Your task to perform on an android device: open app "Expedia: Hotels, Flights & Car" (install if not already installed), go to login, and select forgot password Image 0: 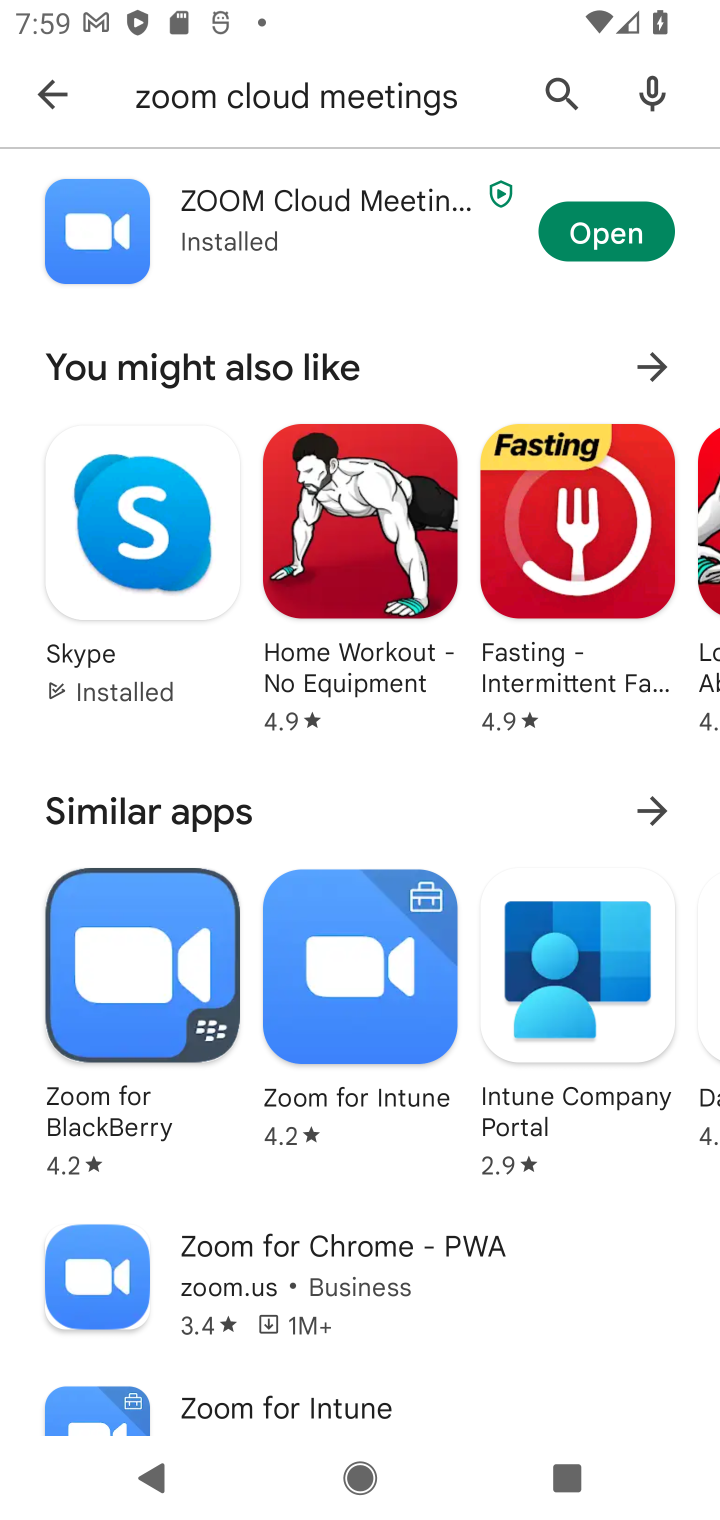
Step 0: click (559, 95)
Your task to perform on an android device: open app "Expedia: Hotels, Flights & Car" (install if not already installed), go to login, and select forgot password Image 1: 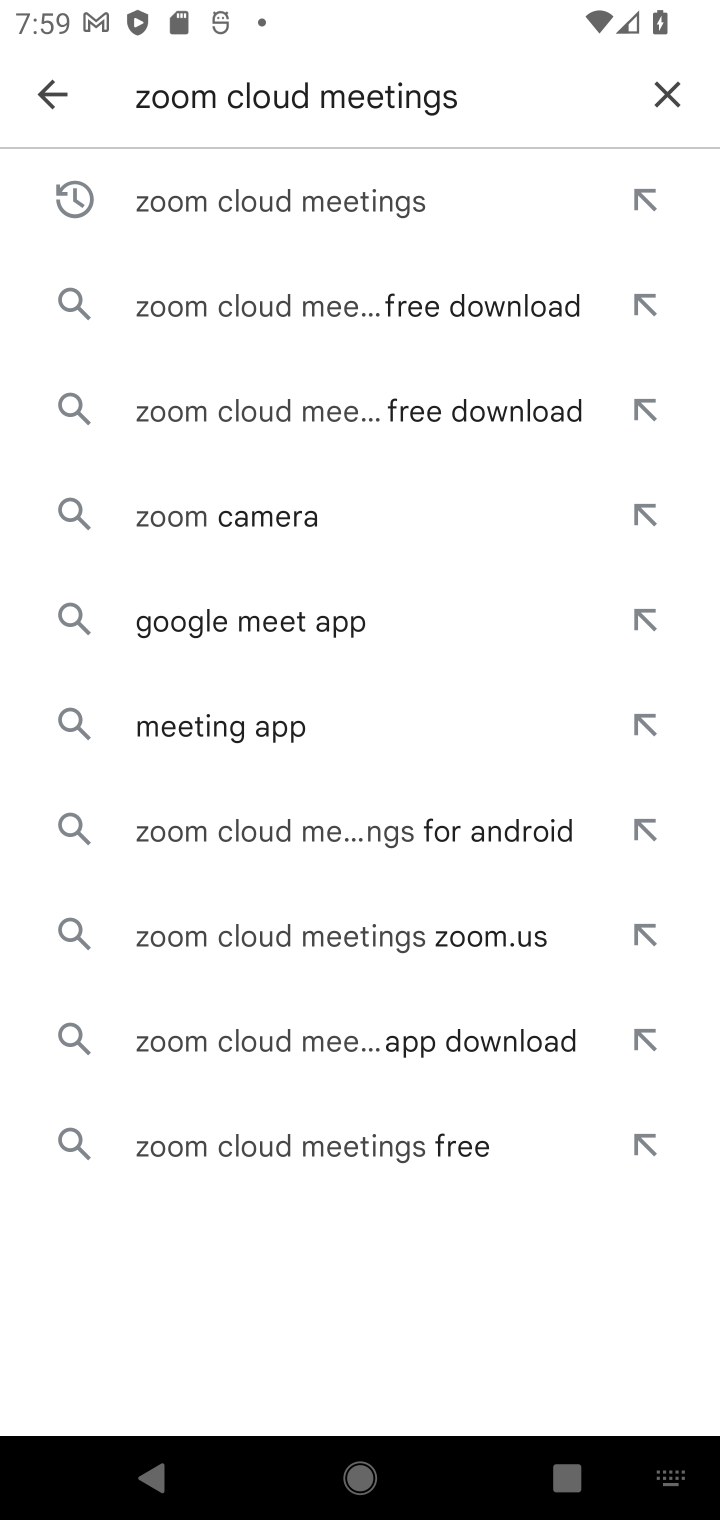
Step 1: click (670, 93)
Your task to perform on an android device: open app "Expedia: Hotels, Flights & Car" (install if not already installed), go to login, and select forgot password Image 2: 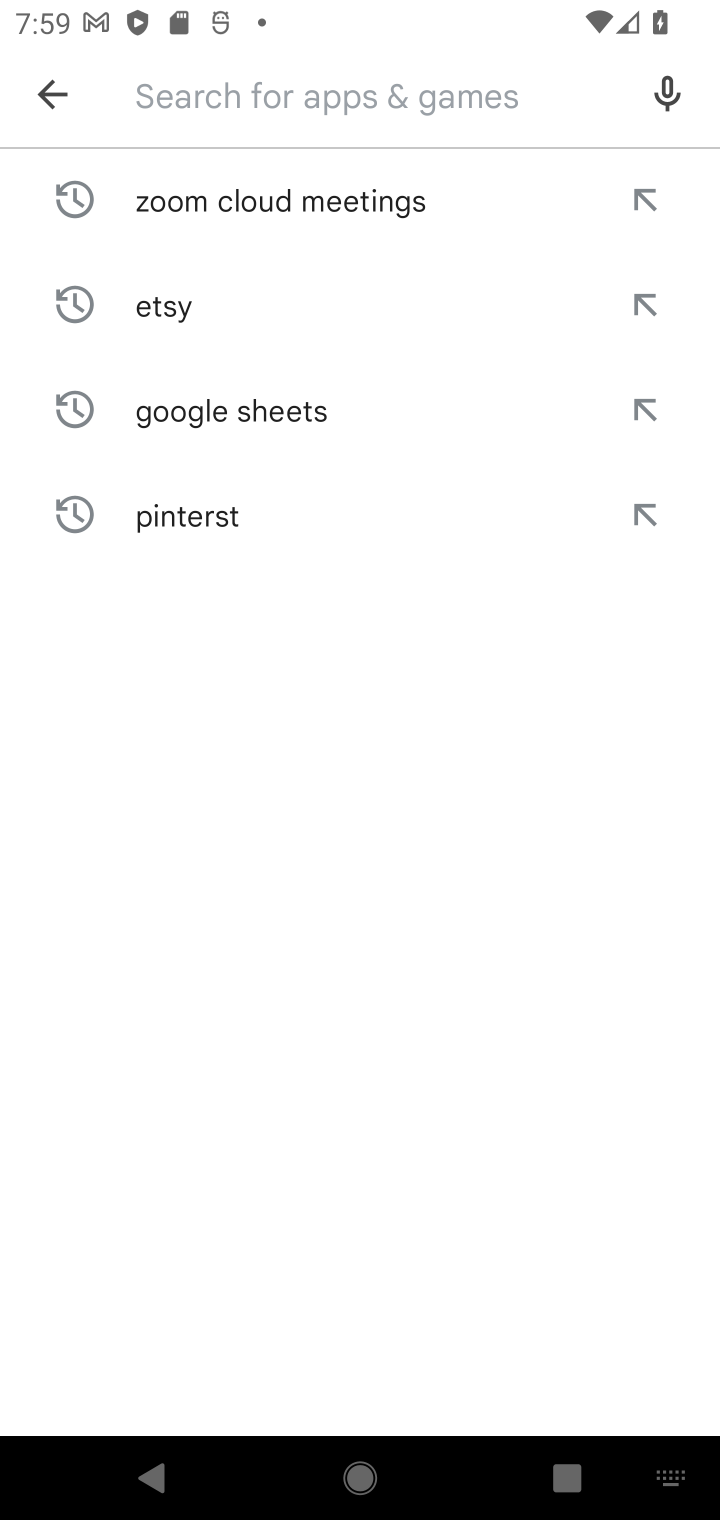
Step 2: click (278, 106)
Your task to perform on an android device: open app "Expedia: Hotels, Flights & Car" (install if not already installed), go to login, and select forgot password Image 3: 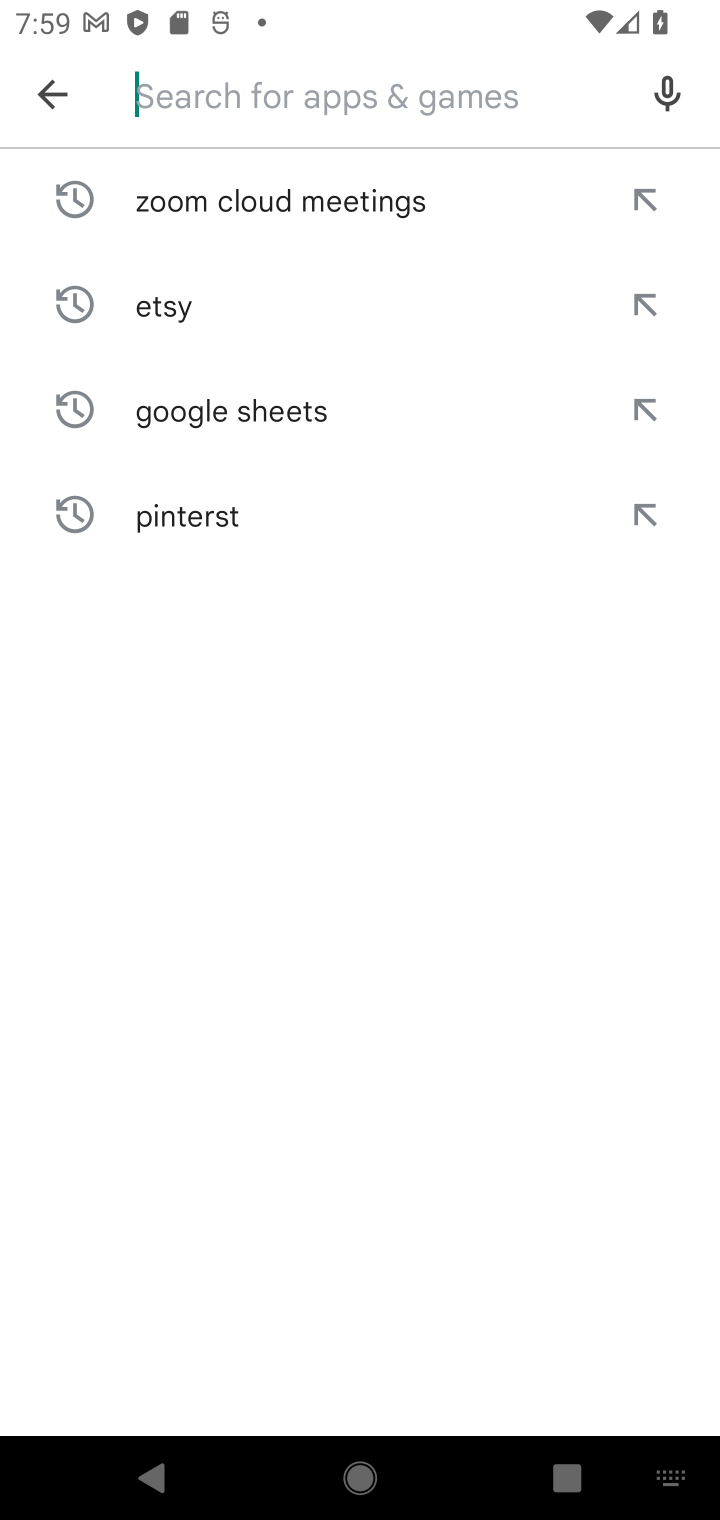
Step 3: type "expedia"
Your task to perform on an android device: open app "Expedia: Hotels, Flights & Car" (install if not already installed), go to login, and select forgot password Image 4: 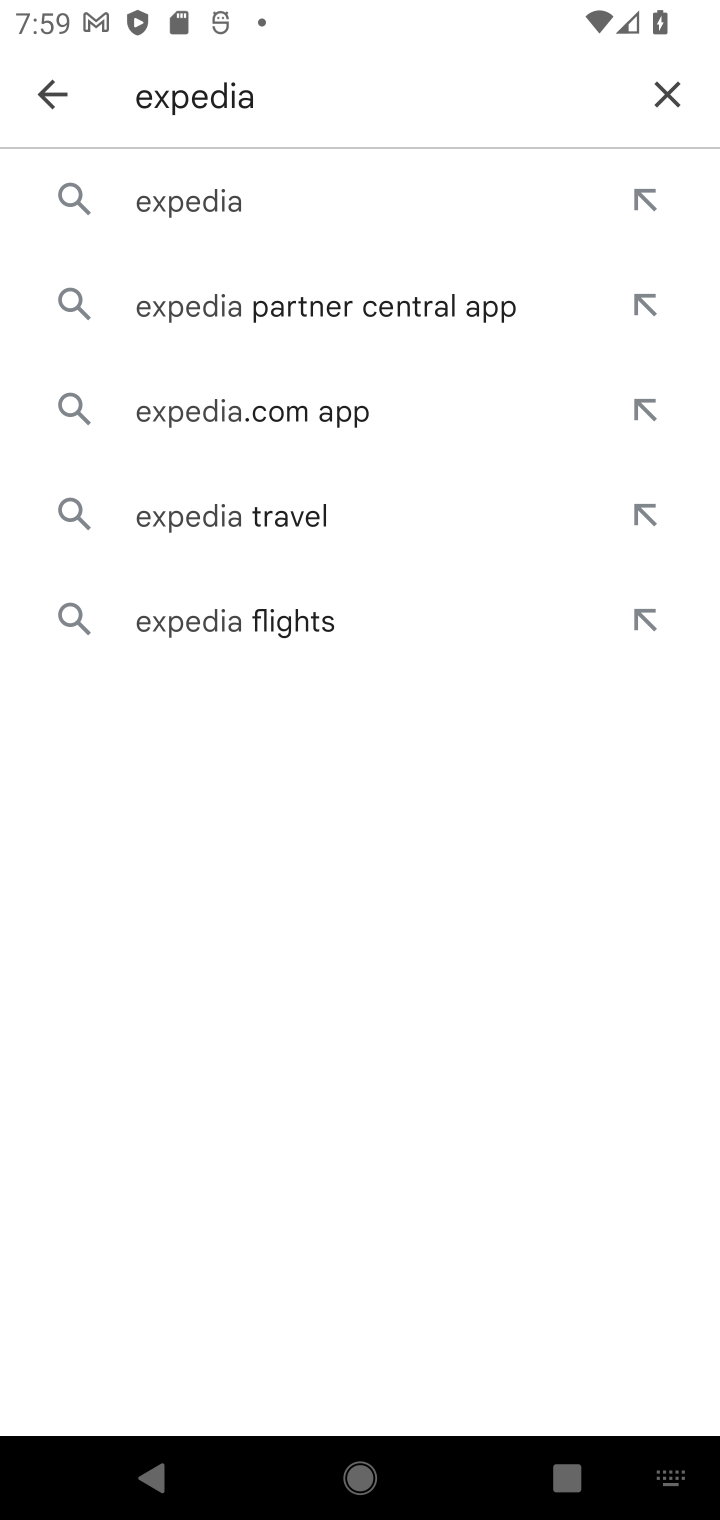
Step 4: click (427, 193)
Your task to perform on an android device: open app "Expedia: Hotels, Flights & Car" (install if not already installed), go to login, and select forgot password Image 5: 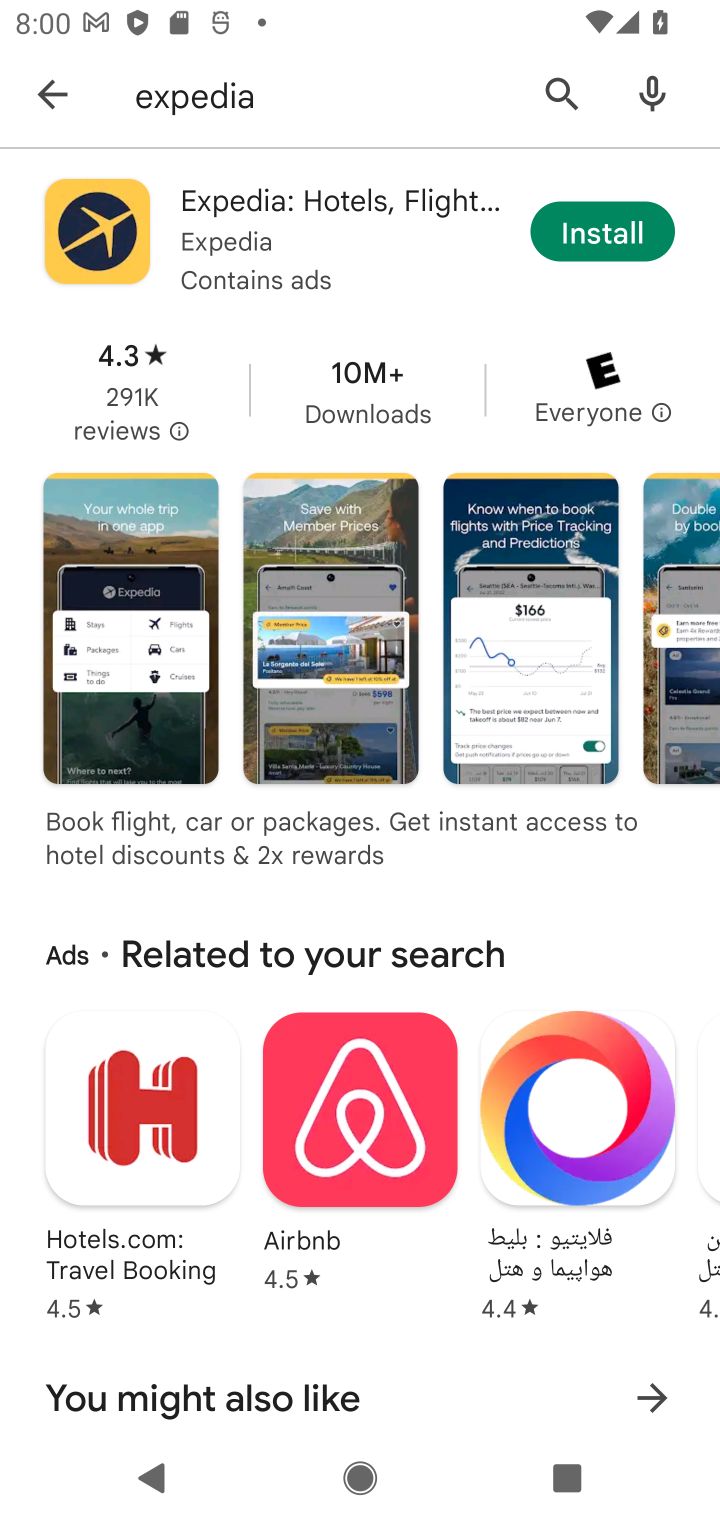
Step 5: click (557, 221)
Your task to perform on an android device: open app "Expedia: Hotels, Flights & Car" (install if not already installed), go to login, and select forgot password Image 6: 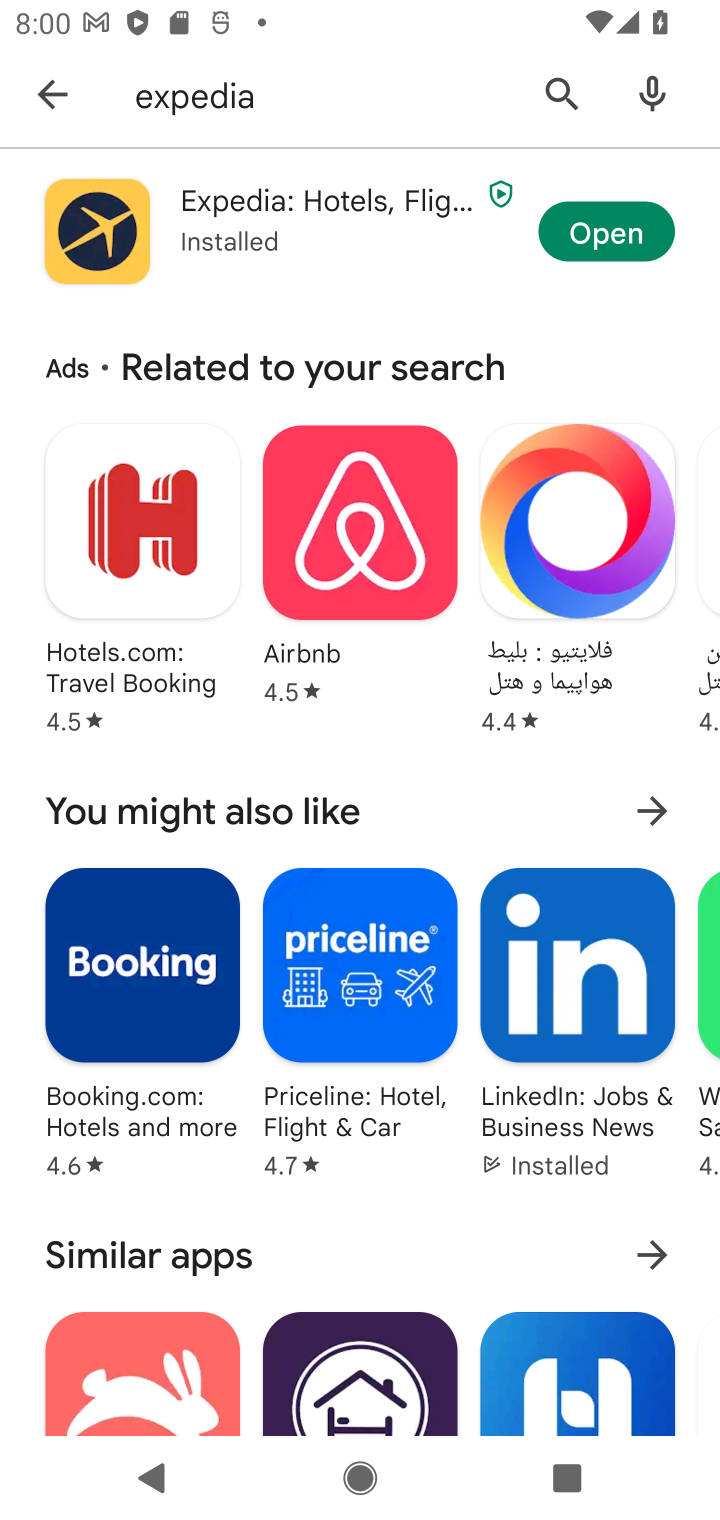
Step 6: click (617, 230)
Your task to perform on an android device: open app "Expedia: Hotels, Flights & Car" (install if not already installed), go to login, and select forgot password Image 7: 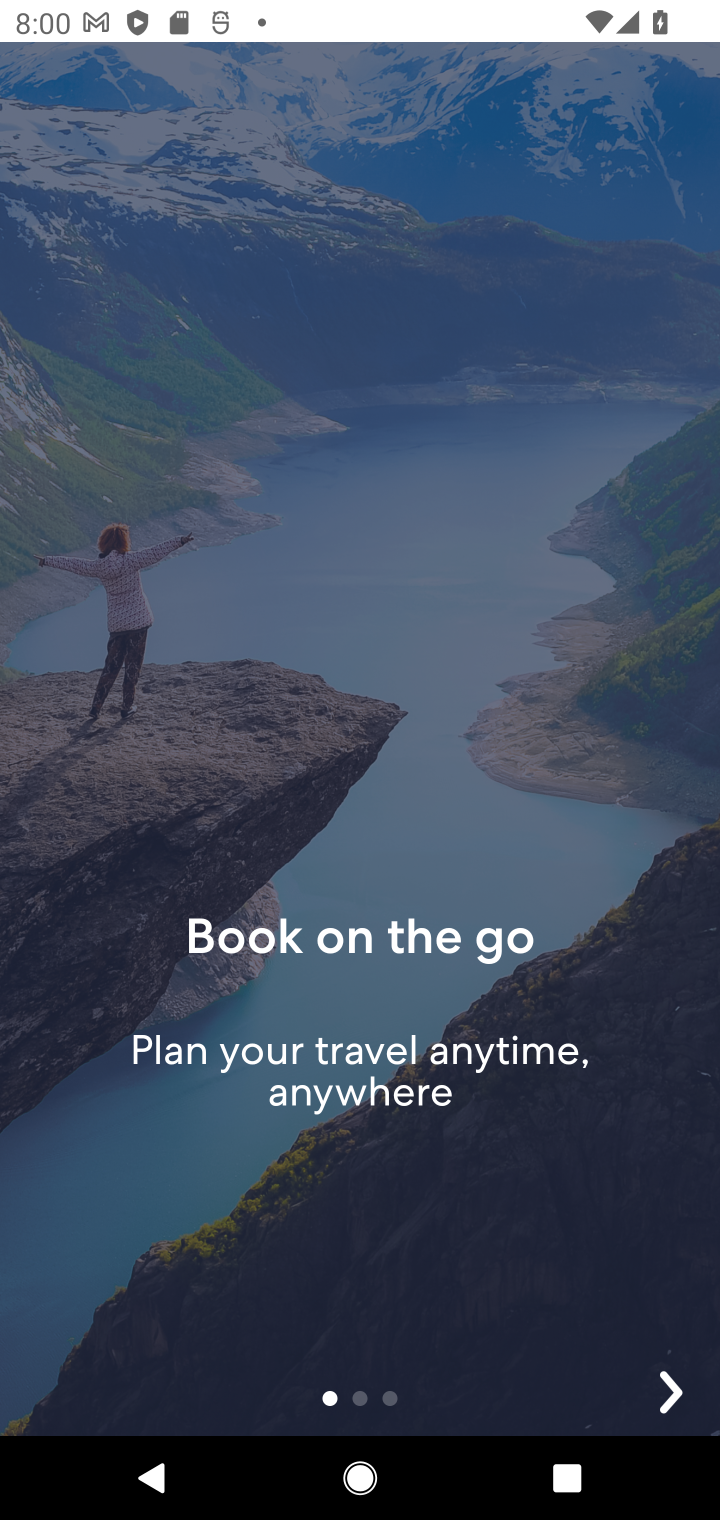
Step 7: click (663, 1384)
Your task to perform on an android device: open app "Expedia: Hotels, Flights & Car" (install if not already installed), go to login, and select forgot password Image 8: 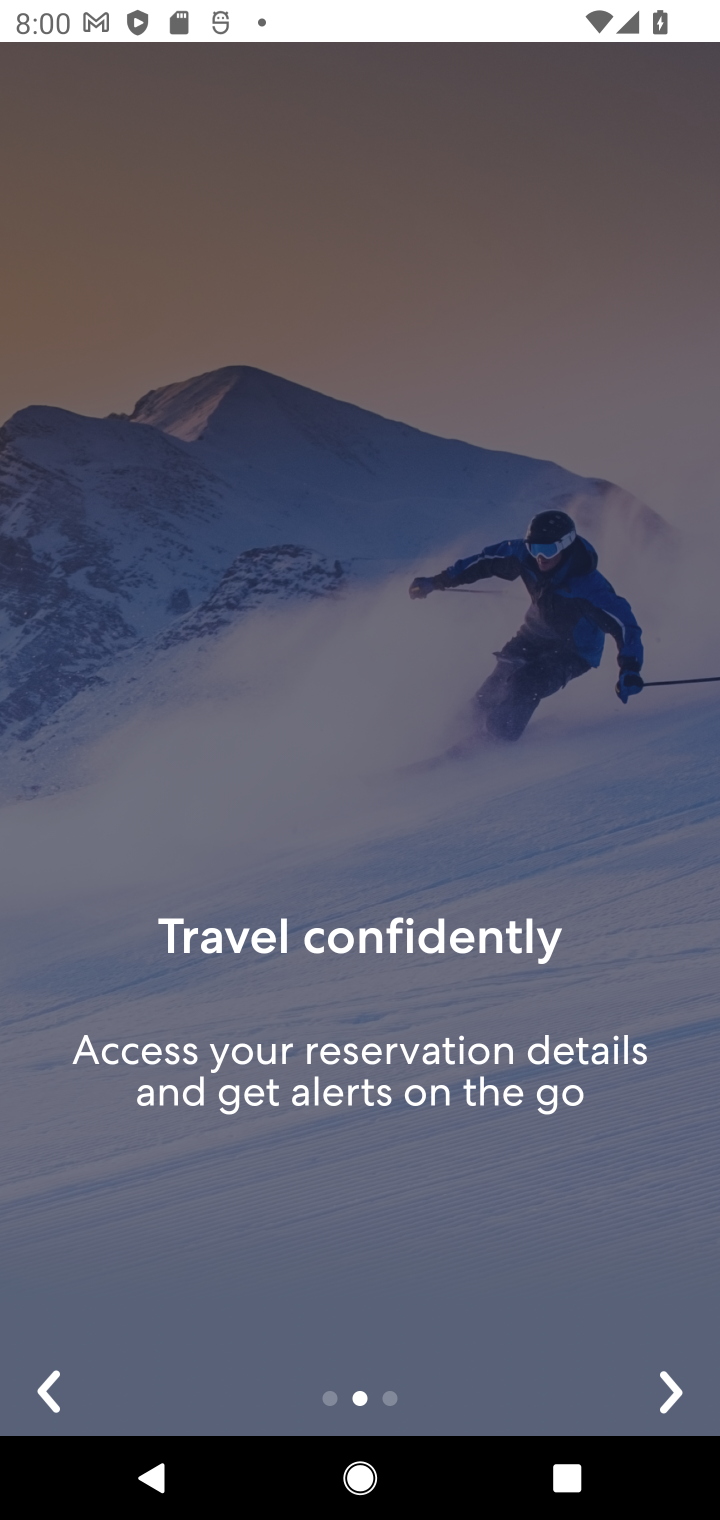
Step 8: click (665, 1378)
Your task to perform on an android device: open app "Expedia: Hotels, Flights & Car" (install if not already installed), go to login, and select forgot password Image 9: 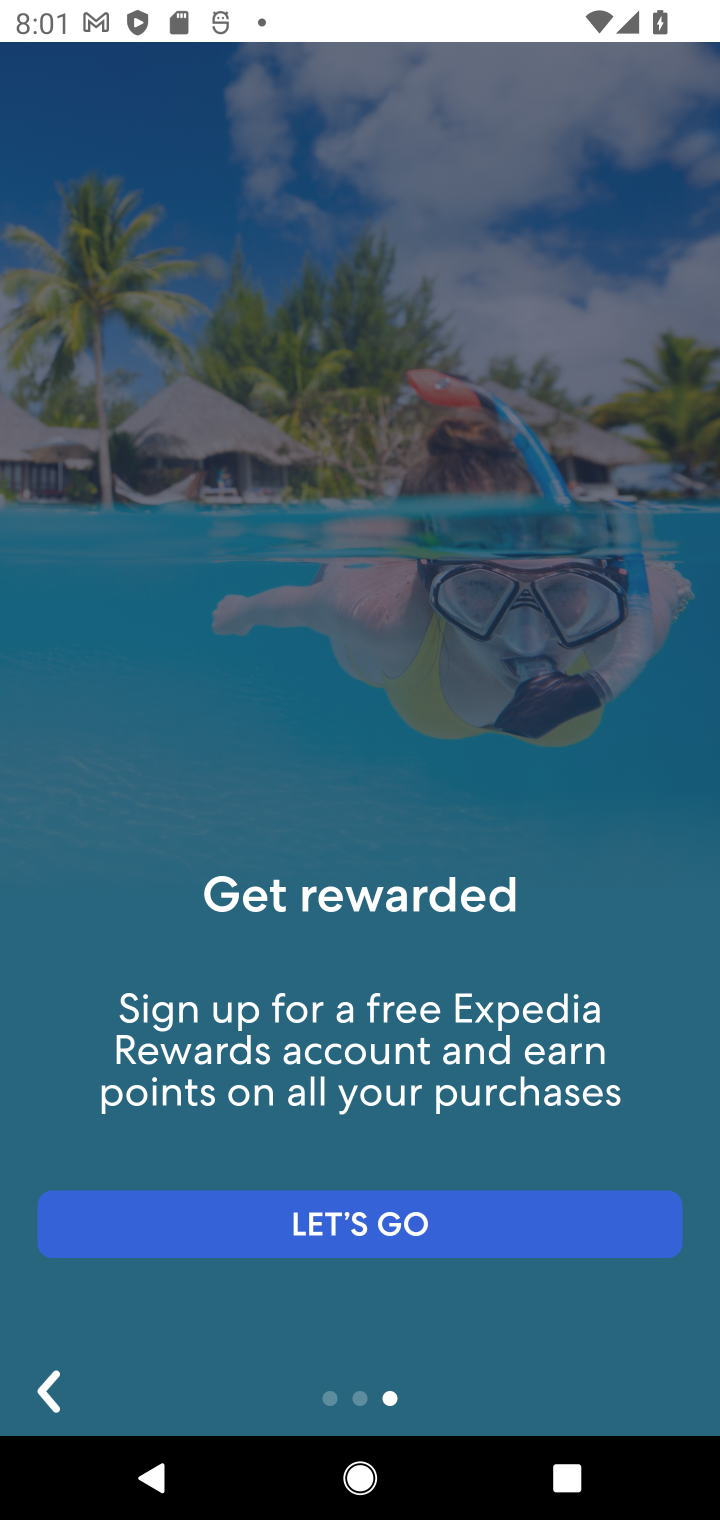
Step 9: click (504, 1208)
Your task to perform on an android device: open app "Expedia: Hotels, Flights & Car" (install if not already installed), go to login, and select forgot password Image 10: 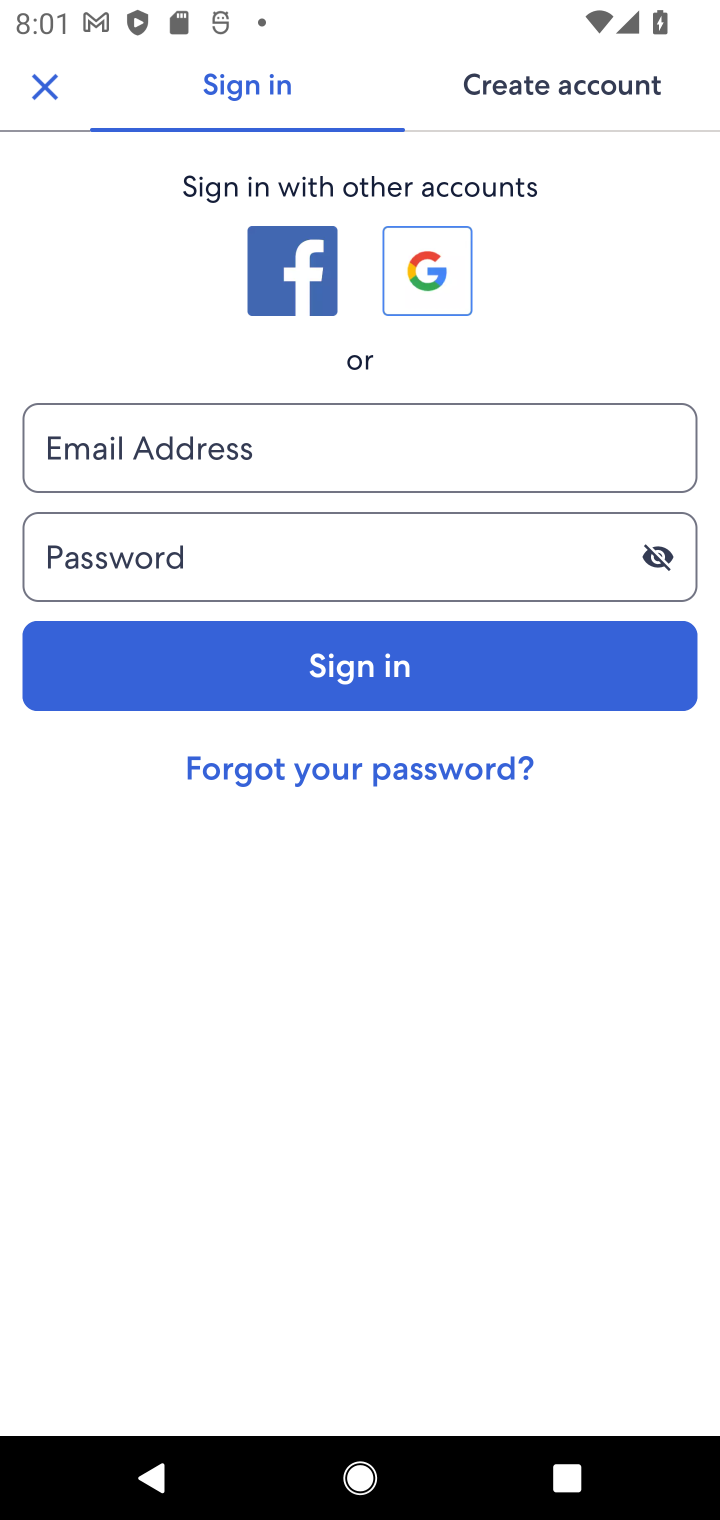
Step 10: click (325, 752)
Your task to perform on an android device: open app "Expedia: Hotels, Flights & Car" (install if not already installed), go to login, and select forgot password Image 11: 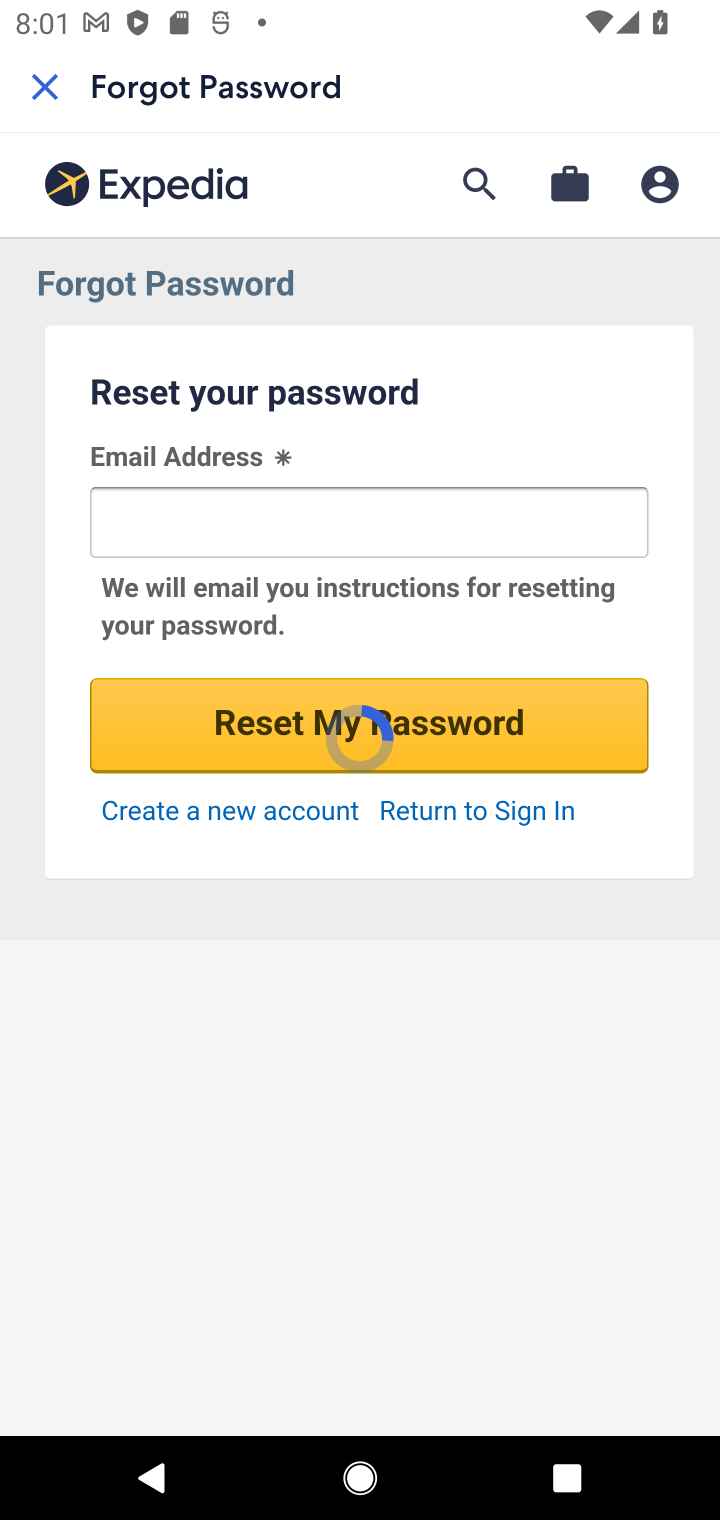
Step 11: task complete